Your task to perform on an android device: change the clock style Image 0: 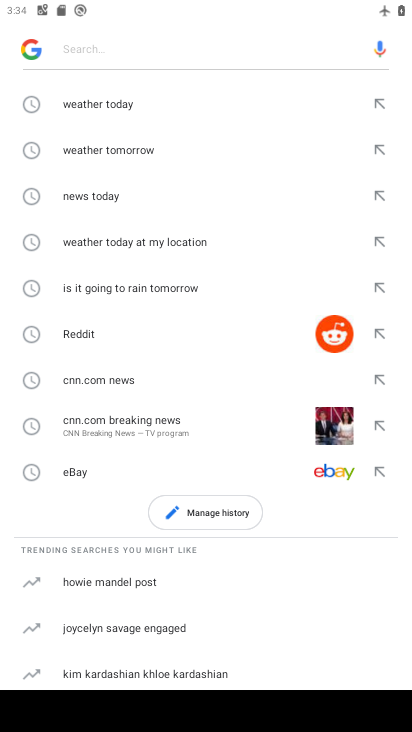
Step 0: press back button
Your task to perform on an android device: change the clock style Image 1: 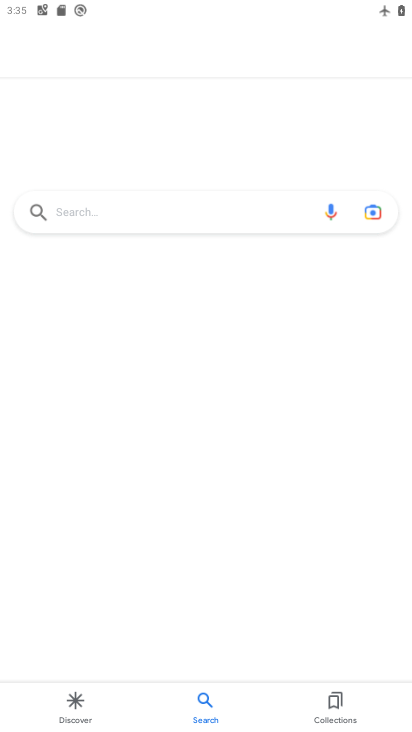
Step 1: press back button
Your task to perform on an android device: change the clock style Image 2: 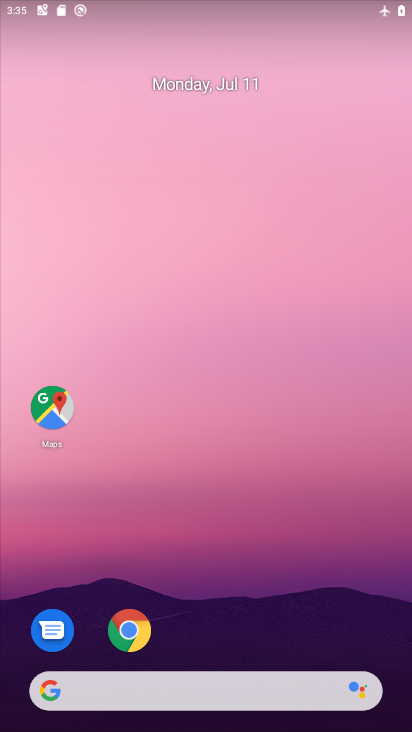
Step 2: drag from (248, 632) to (245, 159)
Your task to perform on an android device: change the clock style Image 3: 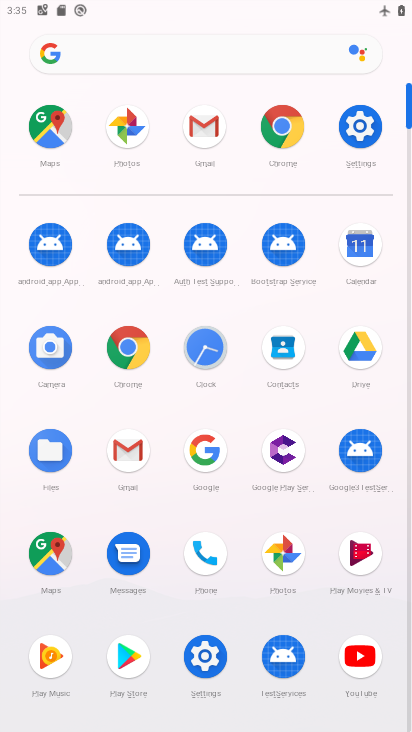
Step 3: click (208, 356)
Your task to perform on an android device: change the clock style Image 4: 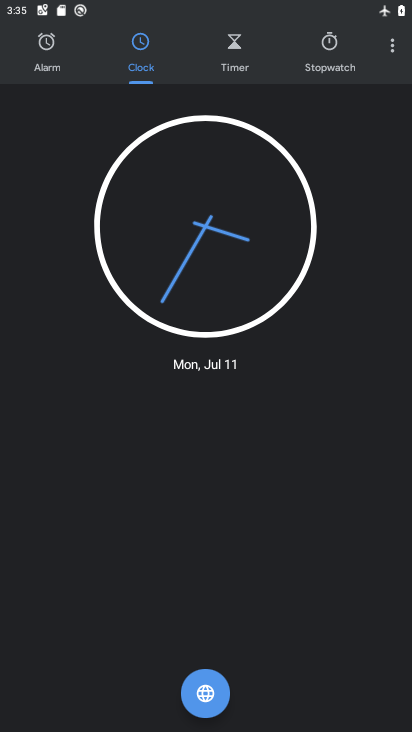
Step 4: click (384, 59)
Your task to perform on an android device: change the clock style Image 5: 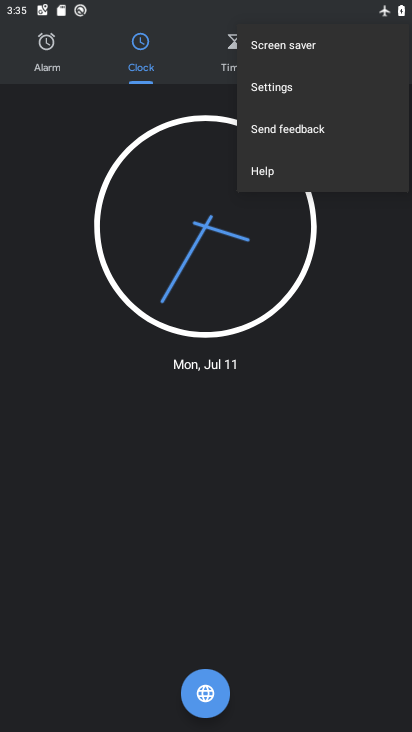
Step 5: click (308, 97)
Your task to perform on an android device: change the clock style Image 6: 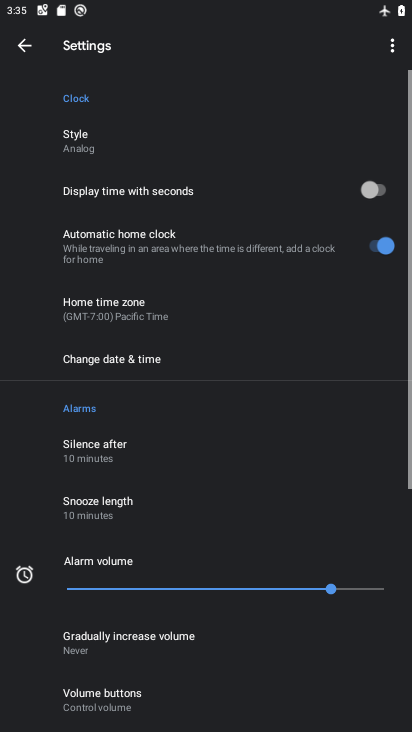
Step 6: click (183, 132)
Your task to perform on an android device: change the clock style Image 7: 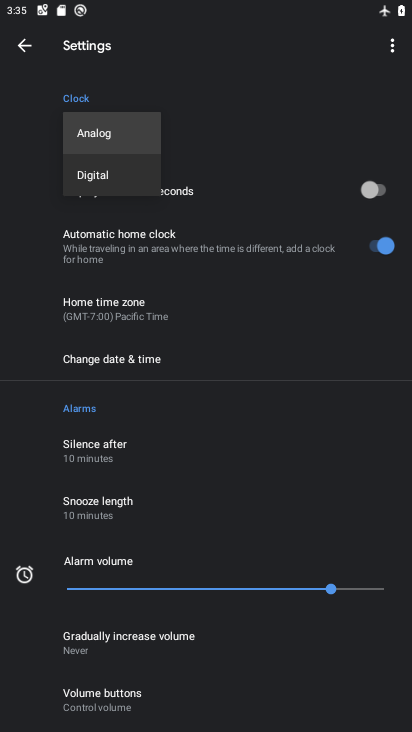
Step 7: click (107, 162)
Your task to perform on an android device: change the clock style Image 8: 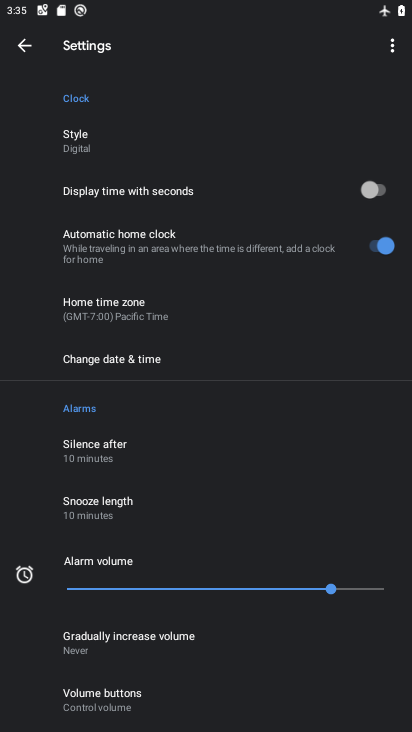
Step 8: task complete